Your task to perform on an android device: Go to Reddit.com Image 0: 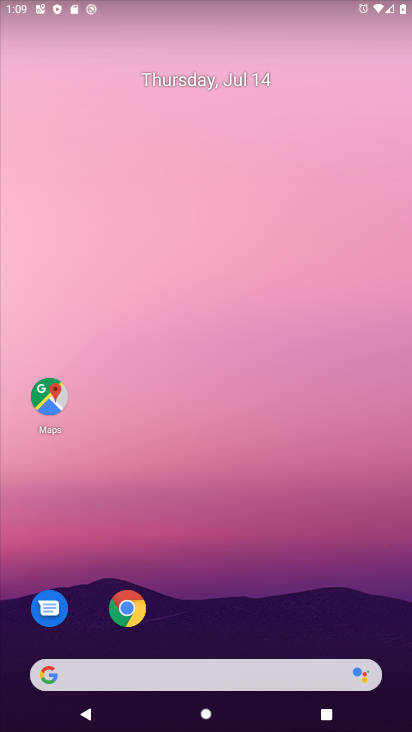
Step 0: drag from (314, 596) to (285, 18)
Your task to perform on an android device: Go to Reddit.com Image 1: 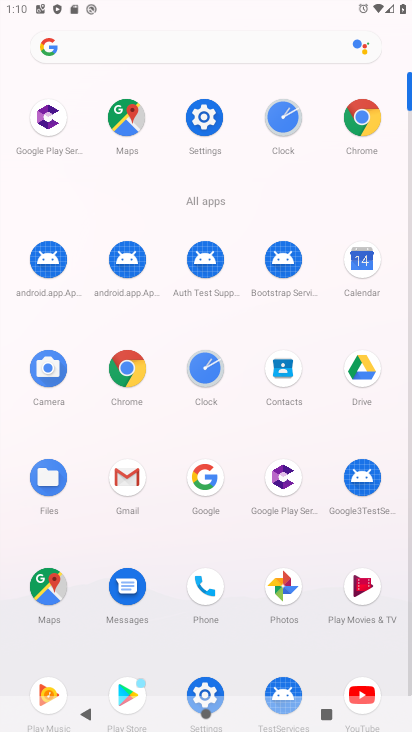
Step 1: click (129, 387)
Your task to perform on an android device: Go to Reddit.com Image 2: 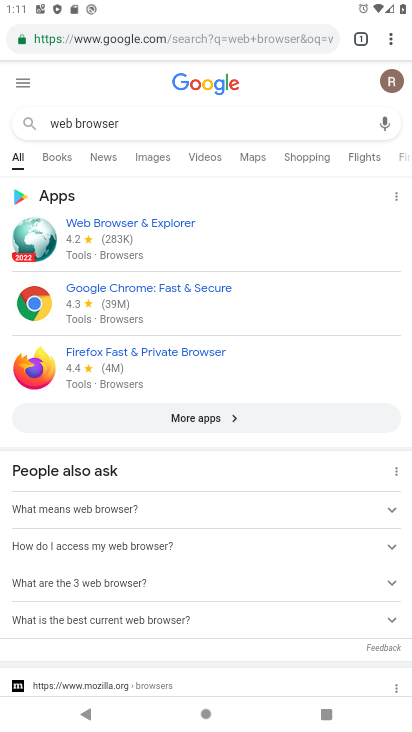
Step 2: click (182, 37)
Your task to perform on an android device: Go to Reddit.com Image 3: 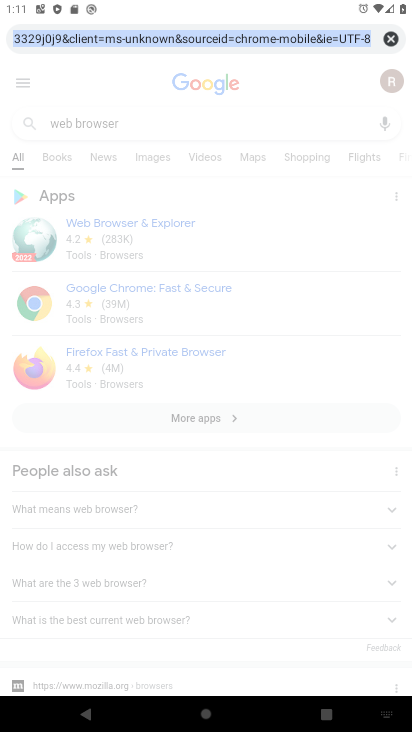
Step 3: type " Reddit.com"
Your task to perform on an android device: Go to Reddit.com Image 4: 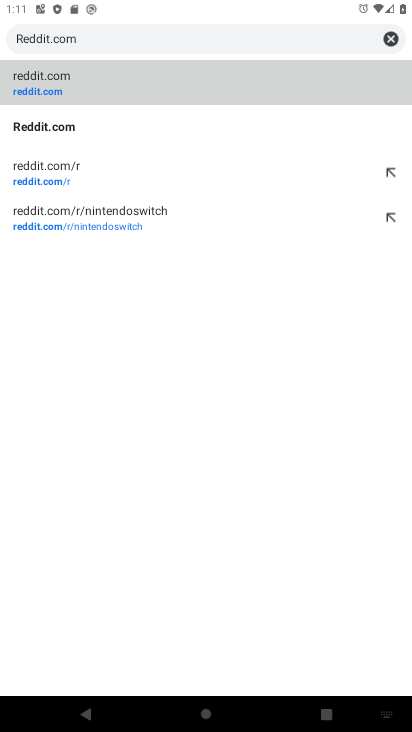
Step 4: click (224, 81)
Your task to perform on an android device: Go to Reddit.com Image 5: 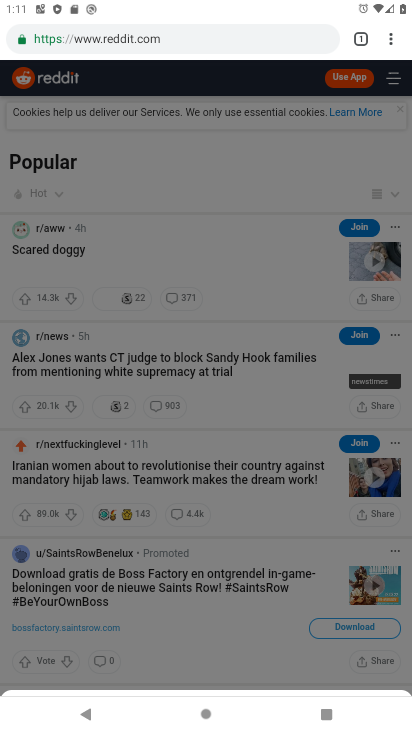
Step 5: task complete